Your task to perform on an android device: Add "dell xps" to the cart on ebay Image 0: 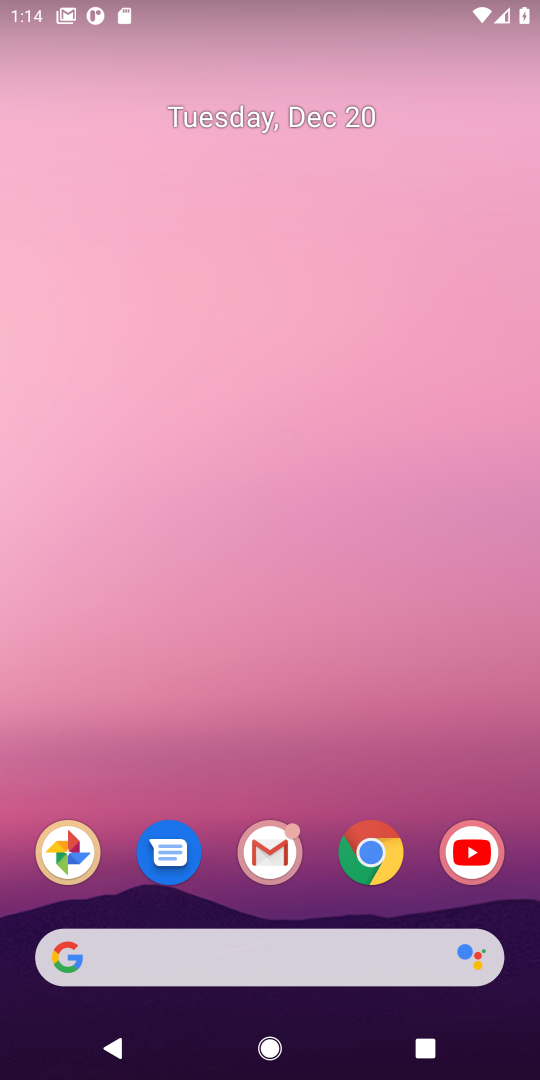
Step 0: click (370, 868)
Your task to perform on an android device: Add "dell xps" to the cart on ebay Image 1: 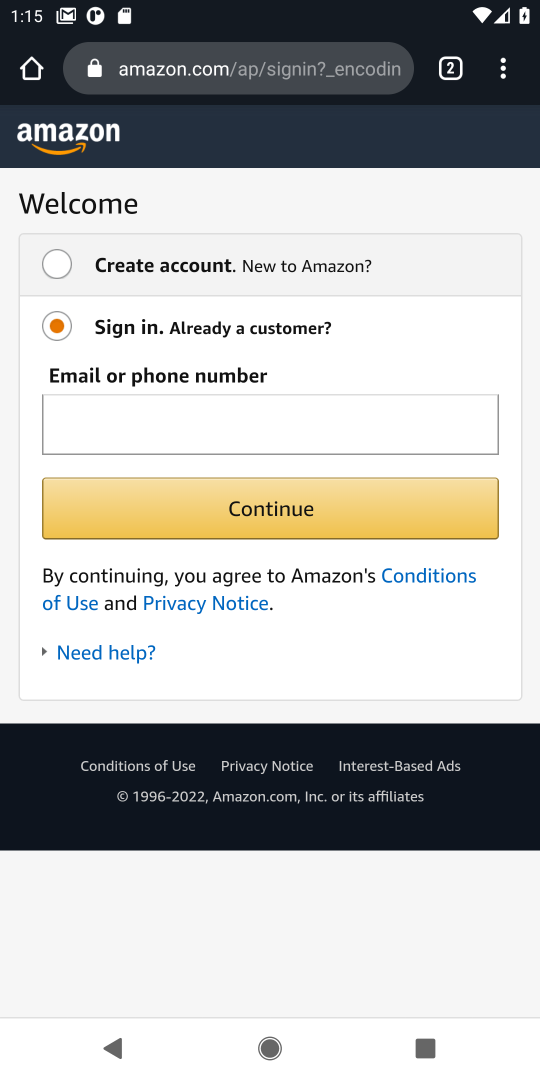
Step 1: click (175, 72)
Your task to perform on an android device: Add "dell xps" to the cart on ebay Image 2: 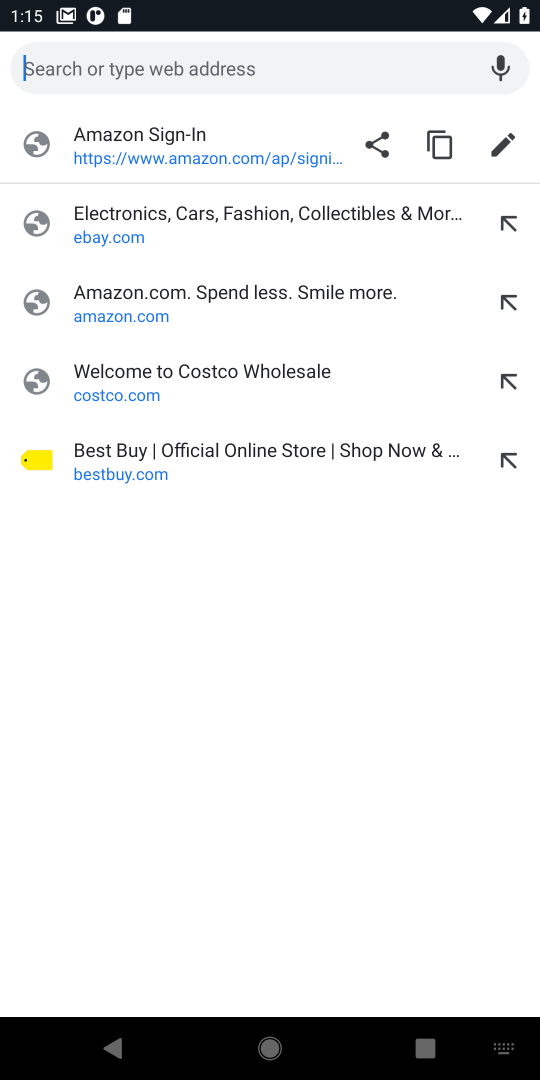
Step 2: click (102, 230)
Your task to perform on an android device: Add "dell xps" to the cart on ebay Image 3: 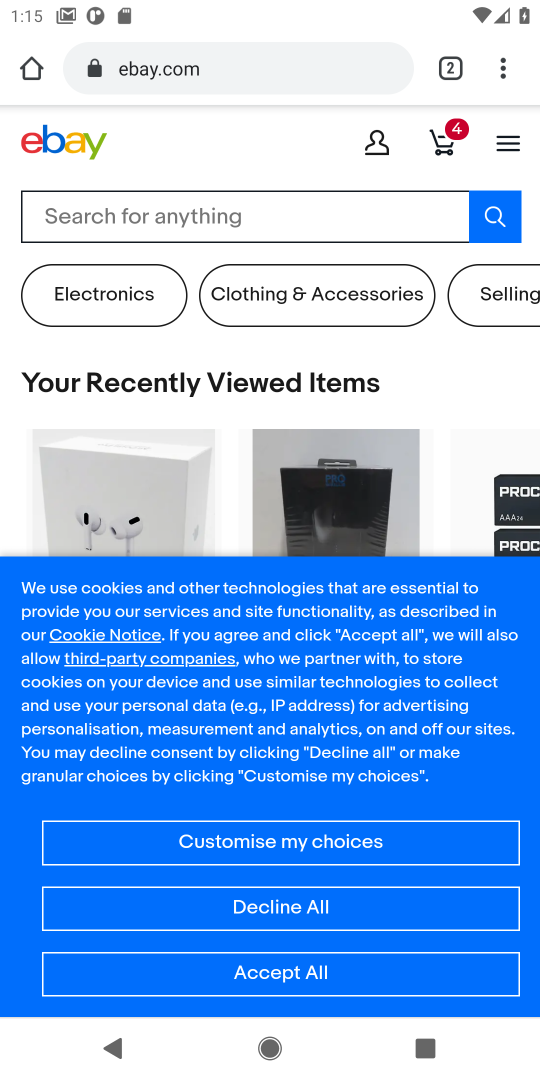
Step 3: click (106, 219)
Your task to perform on an android device: Add "dell xps" to the cart on ebay Image 4: 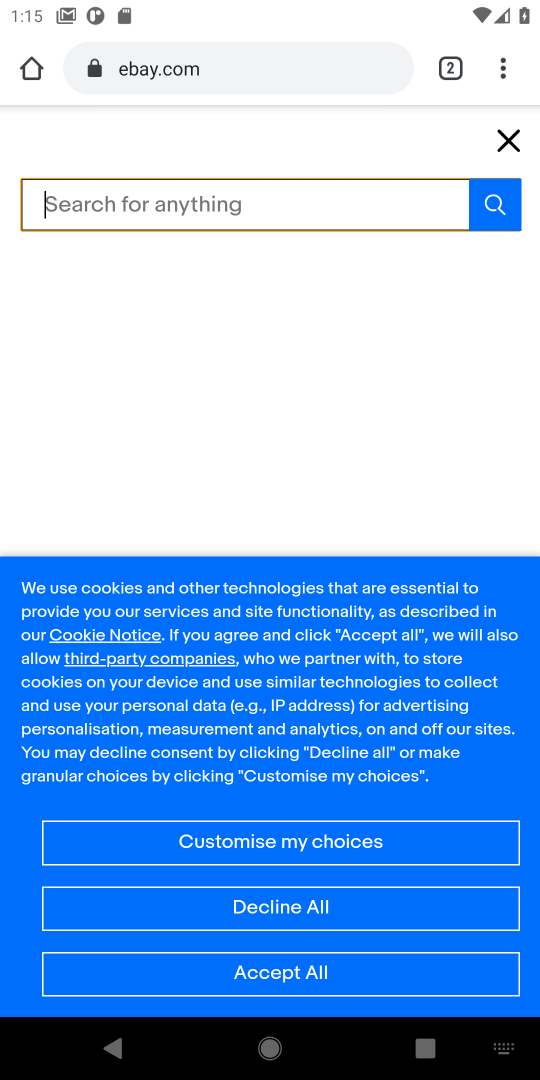
Step 4: type "dell xps"
Your task to perform on an android device: Add "dell xps" to the cart on ebay Image 5: 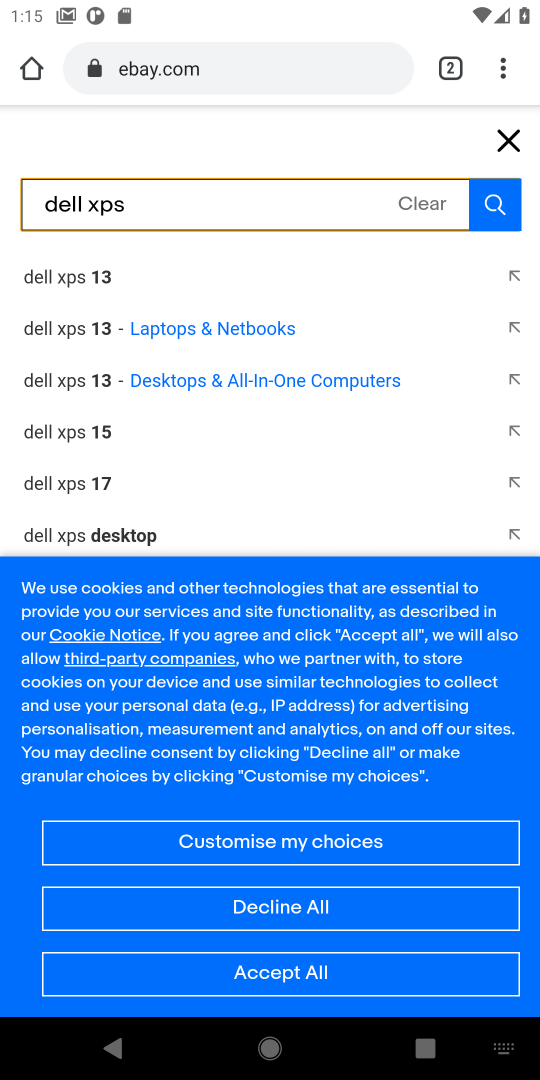
Step 5: click (490, 205)
Your task to perform on an android device: Add "dell xps" to the cart on ebay Image 6: 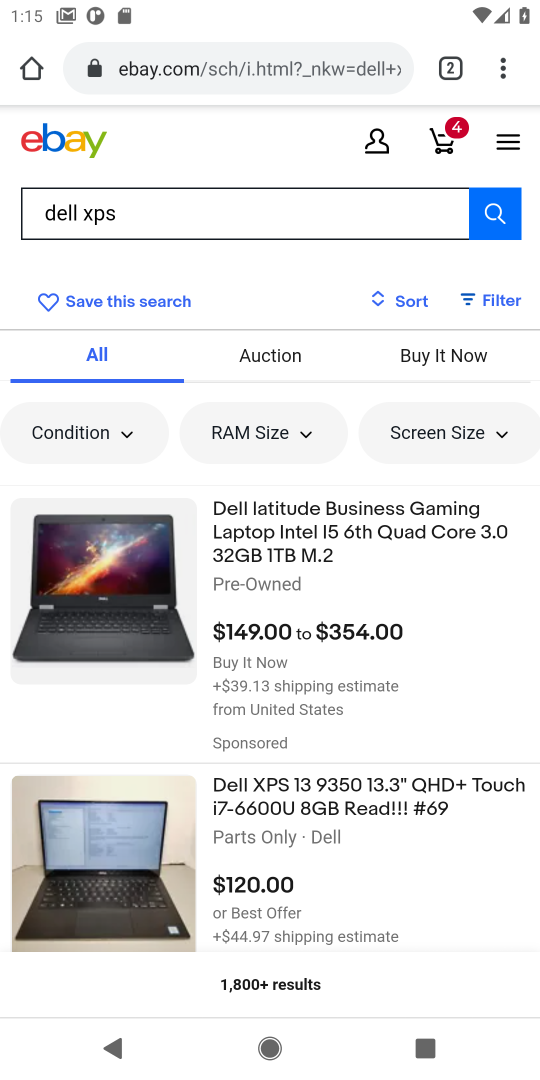
Step 6: drag from (251, 769) to (251, 595)
Your task to perform on an android device: Add "dell xps" to the cart on ebay Image 7: 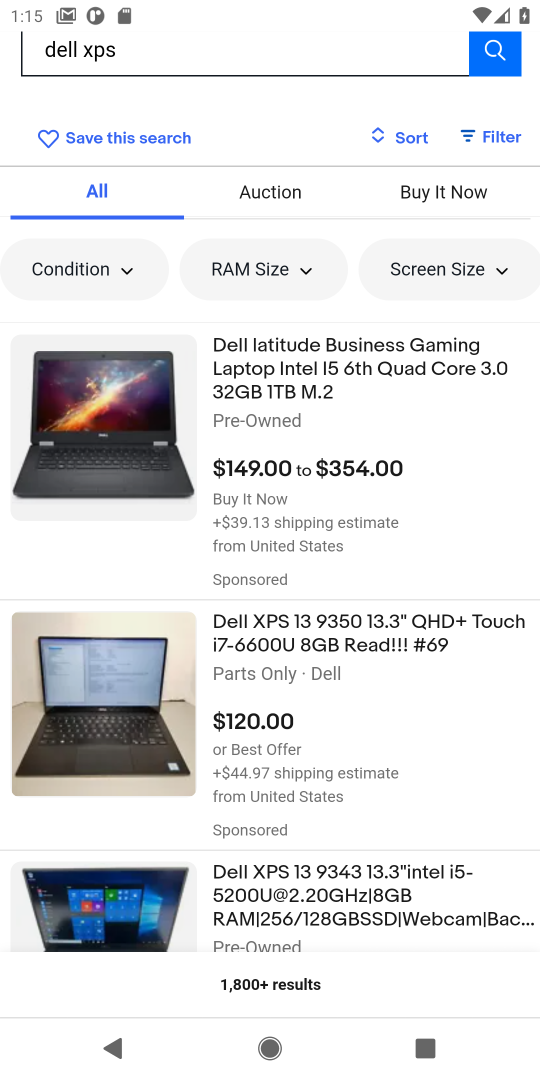
Step 7: click (268, 639)
Your task to perform on an android device: Add "dell xps" to the cart on ebay Image 8: 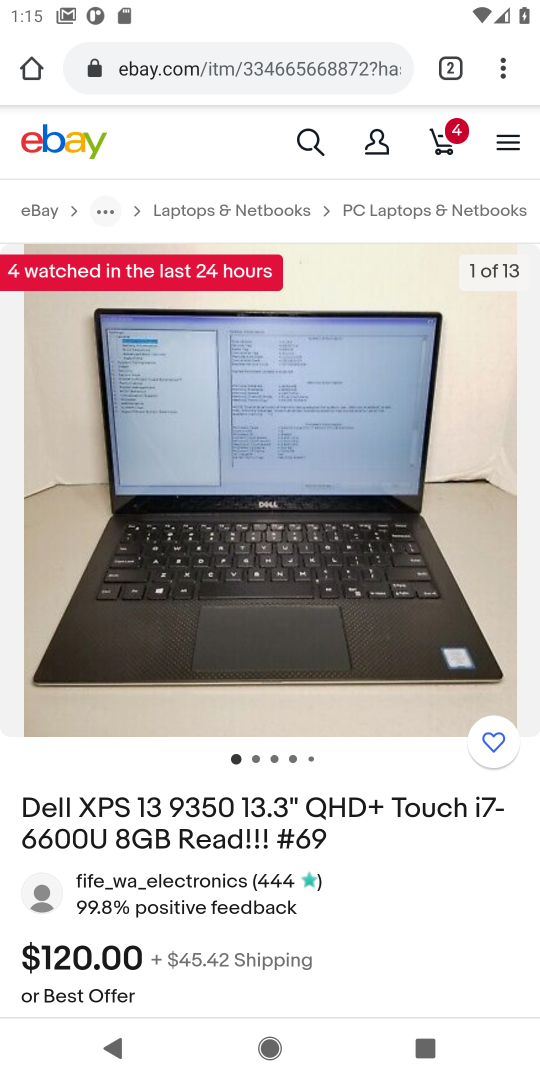
Step 8: drag from (332, 814) to (310, 480)
Your task to perform on an android device: Add "dell xps" to the cart on ebay Image 9: 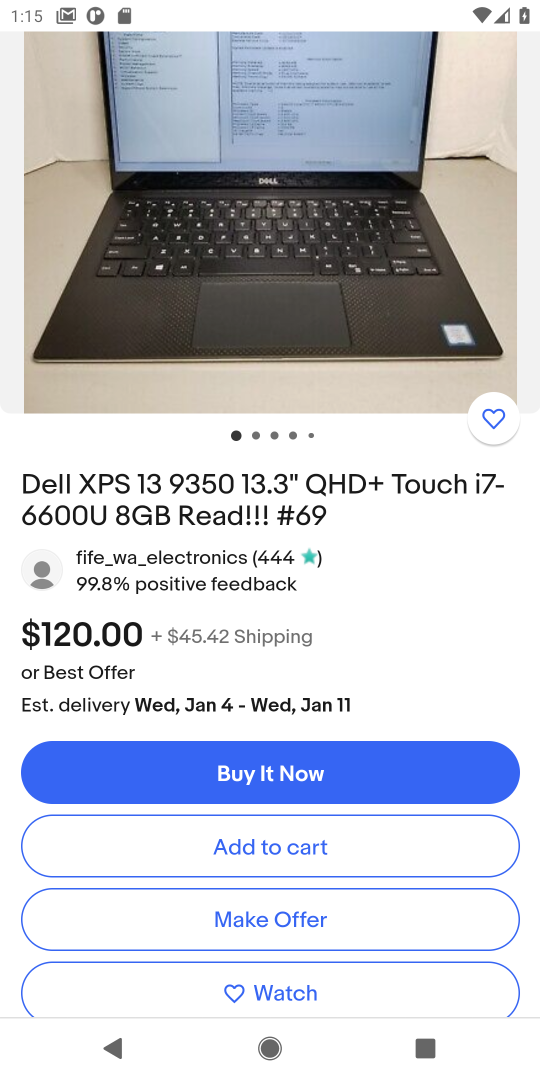
Step 9: click (247, 848)
Your task to perform on an android device: Add "dell xps" to the cart on ebay Image 10: 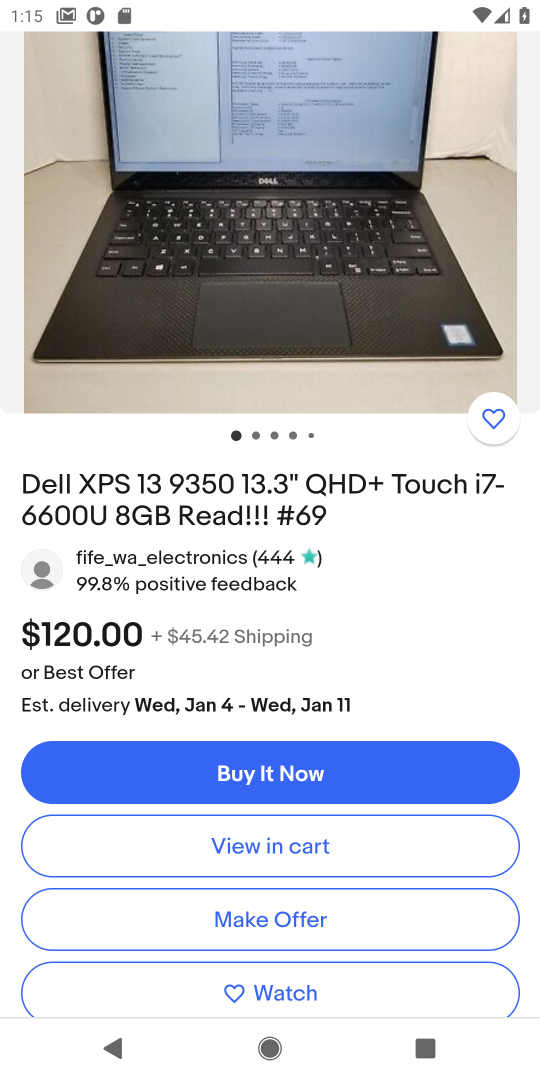
Step 10: task complete